Your task to perform on an android device: set an alarm Image 0: 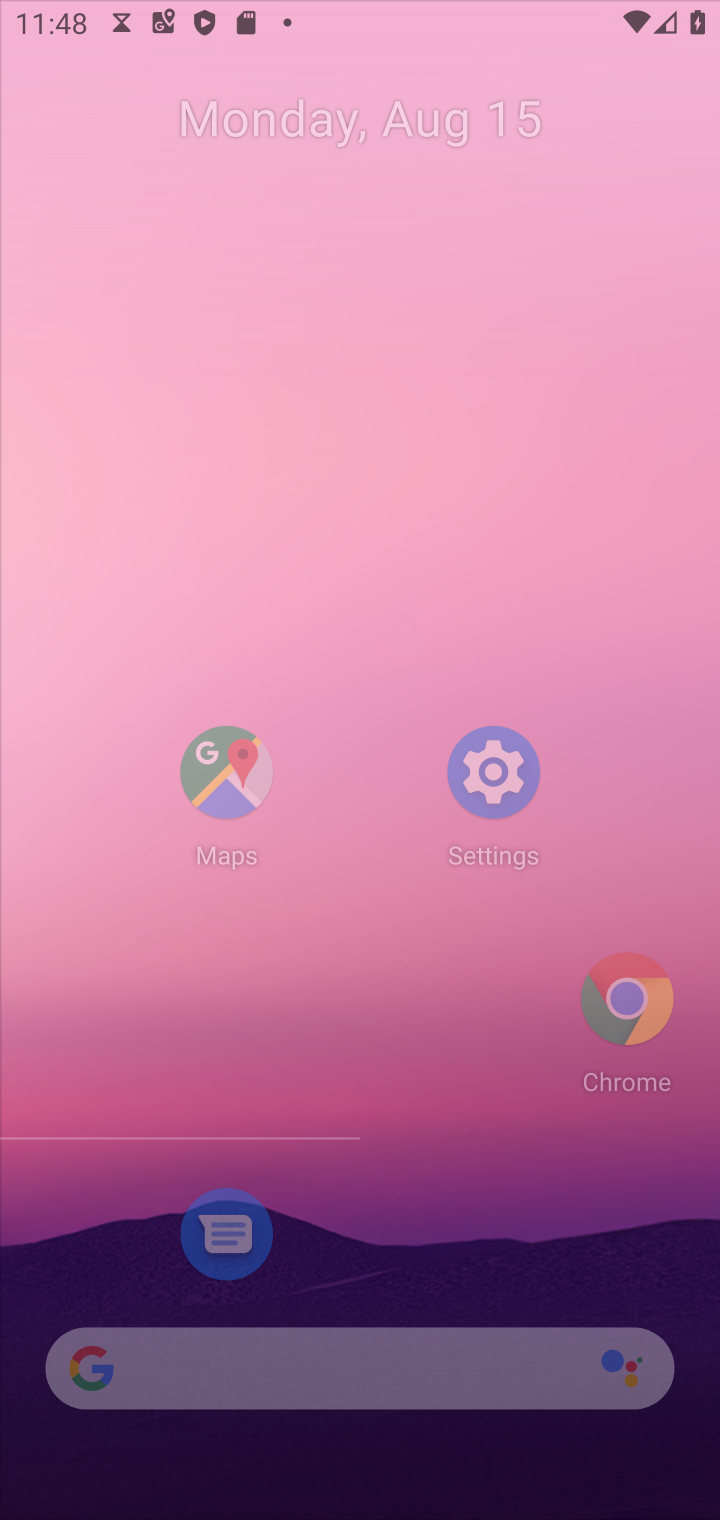
Step 0: press home button
Your task to perform on an android device: set an alarm Image 1: 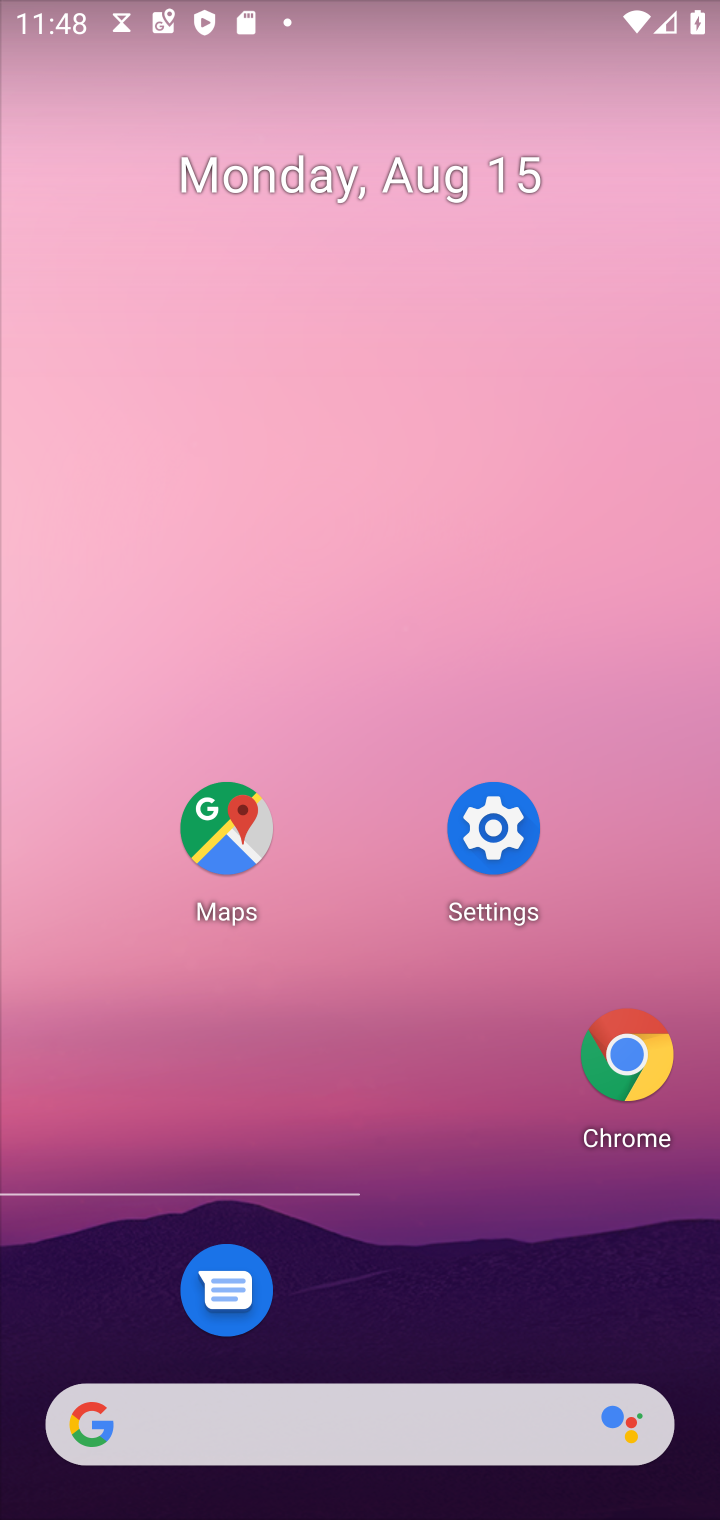
Step 1: drag from (378, 1414) to (564, 185)
Your task to perform on an android device: set an alarm Image 2: 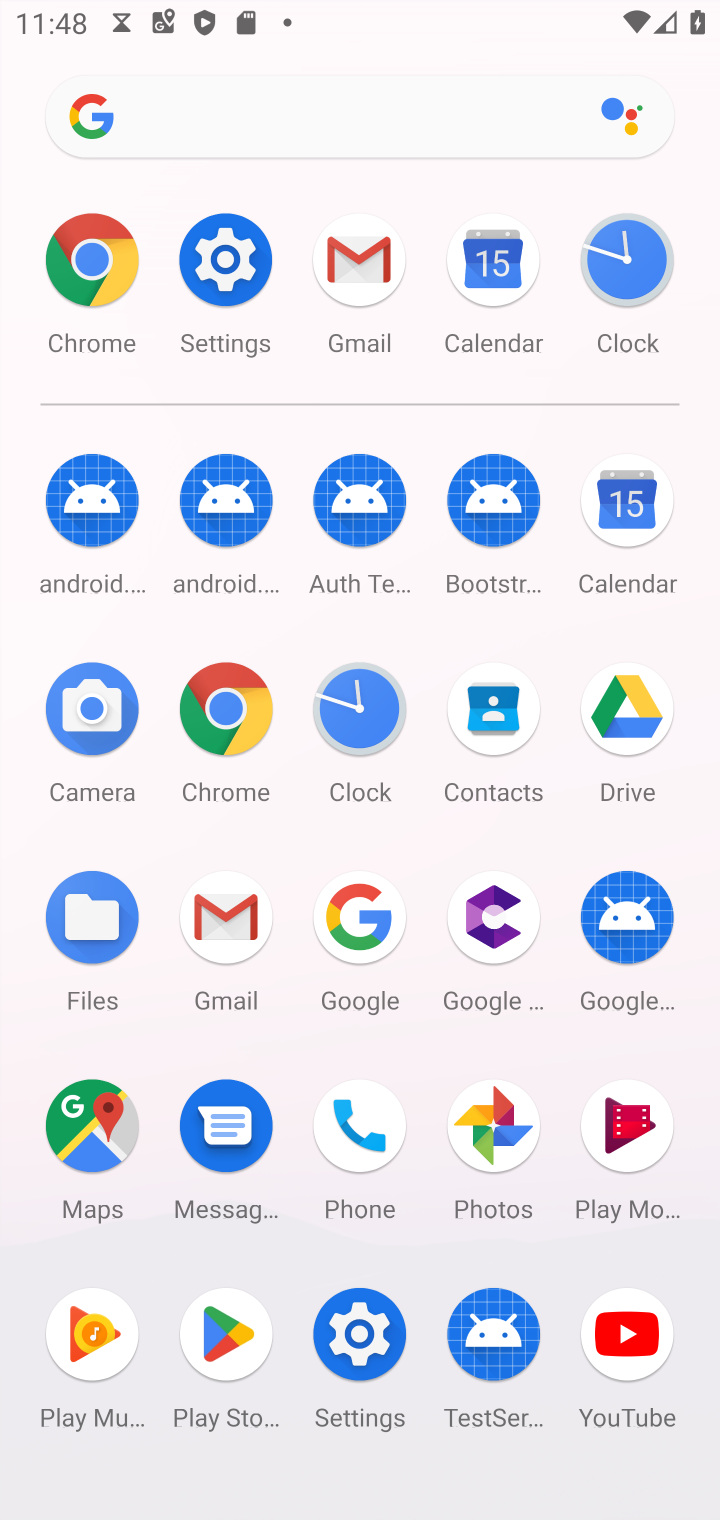
Step 2: click (629, 264)
Your task to perform on an android device: set an alarm Image 3: 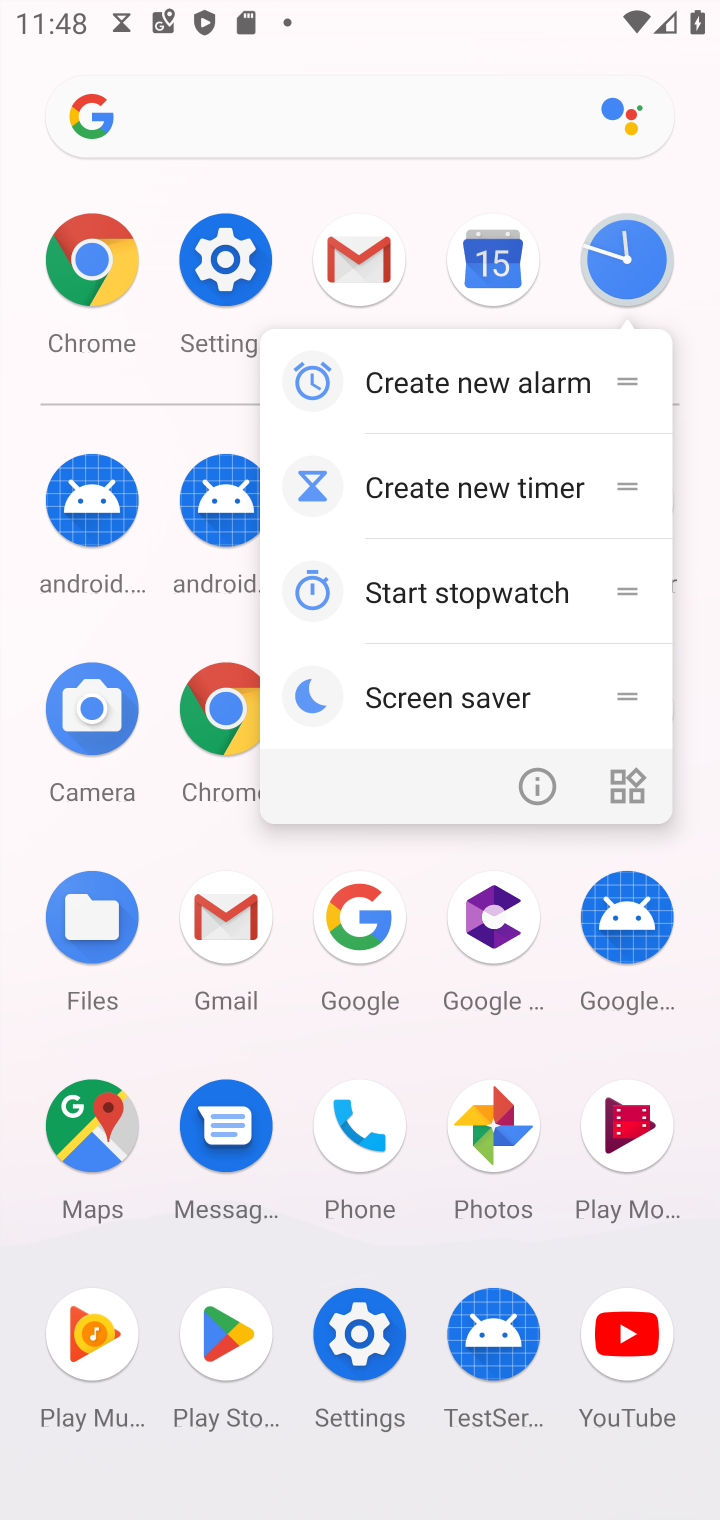
Step 3: click (629, 266)
Your task to perform on an android device: set an alarm Image 4: 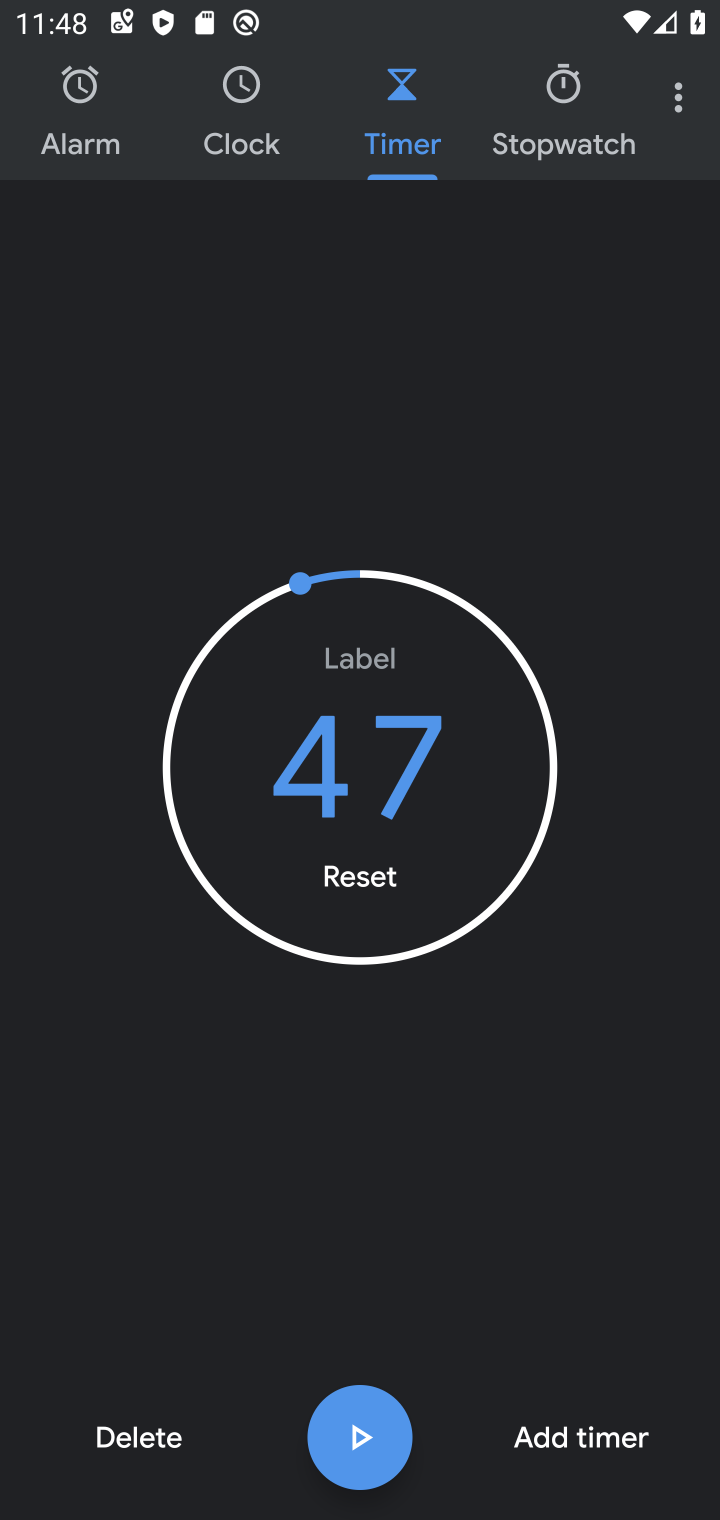
Step 4: click (70, 127)
Your task to perform on an android device: set an alarm Image 5: 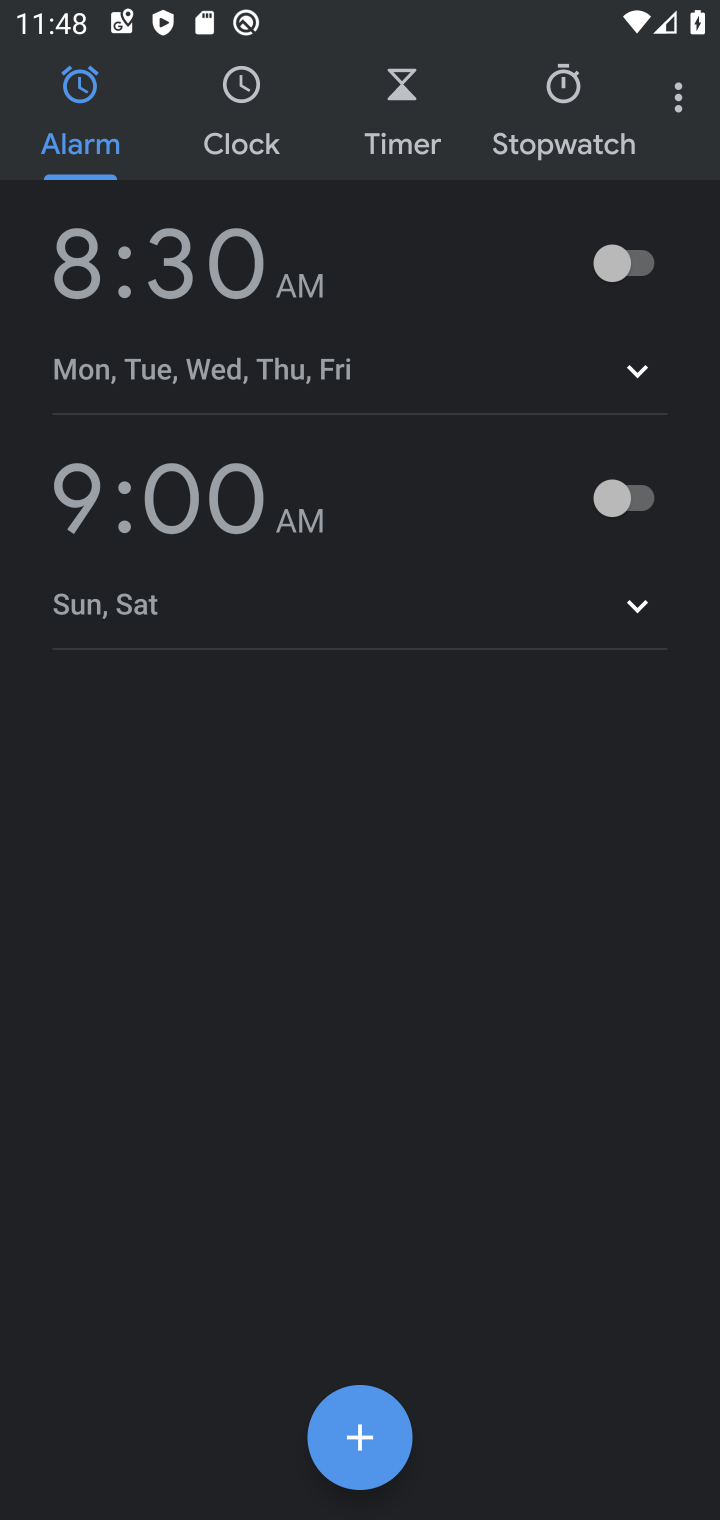
Step 5: click (638, 270)
Your task to perform on an android device: set an alarm Image 6: 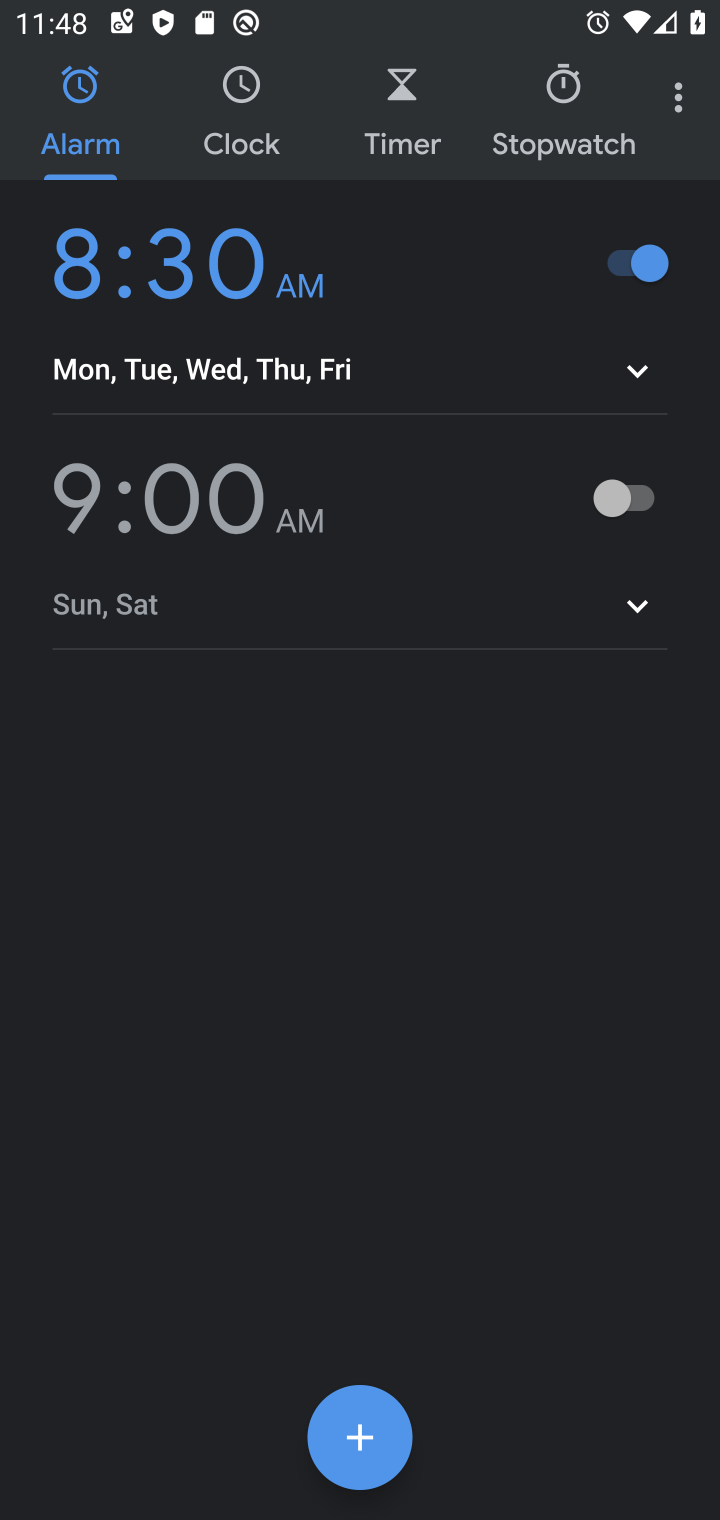
Step 6: task complete